Your task to perform on an android device: clear history in the chrome app Image 0: 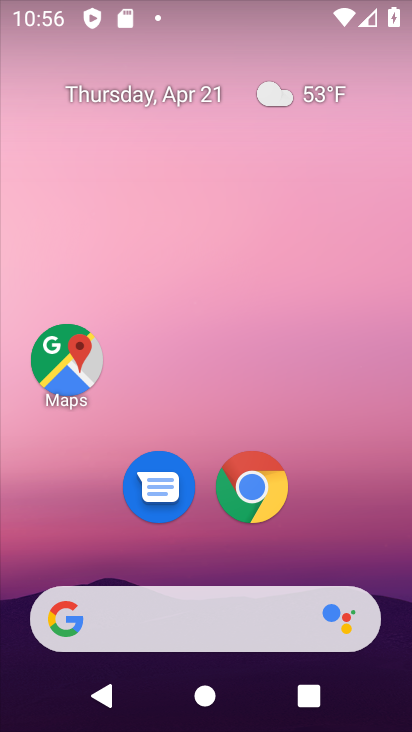
Step 0: click (344, 518)
Your task to perform on an android device: clear history in the chrome app Image 1: 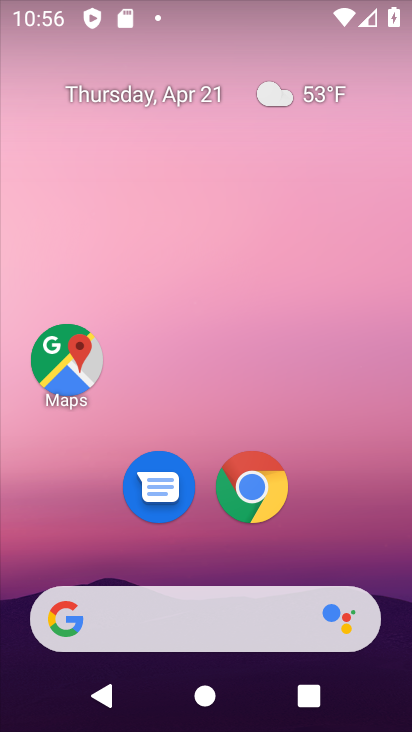
Step 1: drag from (324, 529) to (314, 128)
Your task to perform on an android device: clear history in the chrome app Image 2: 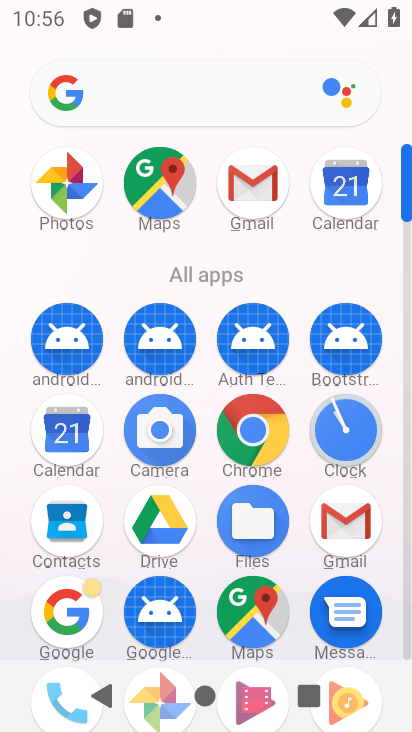
Step 2: click (244, 448)
Your task to perform on an android device: clear history in the chrome app Image 3: 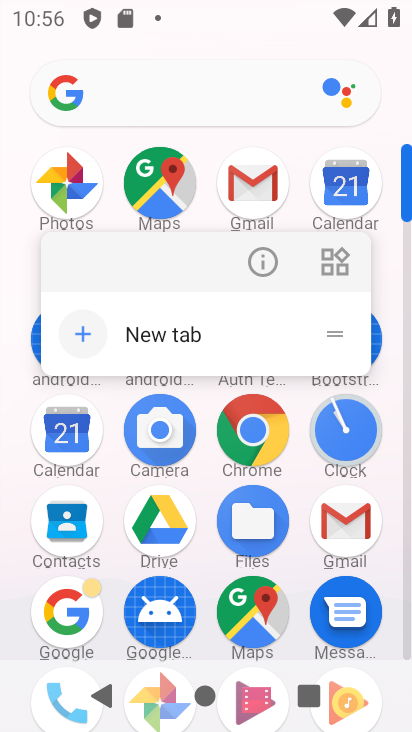
Step 3: click (258, 418)
Your task to perform on an android device: clear history in the chrome app Image 4: 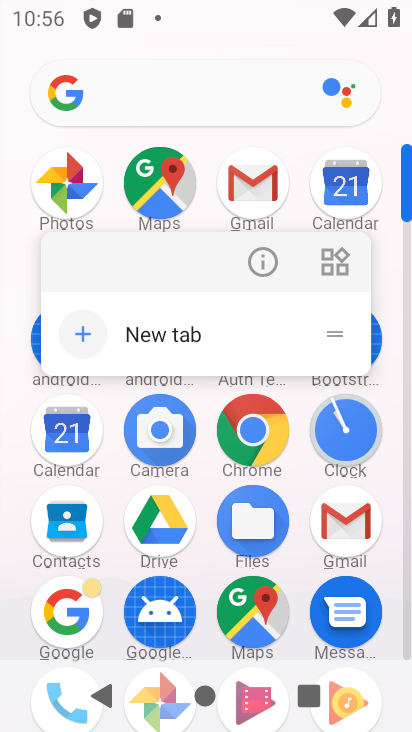
Step 4: click (258, 416)
Your task to perform on an android device: clear history in the chrome app Image 5: 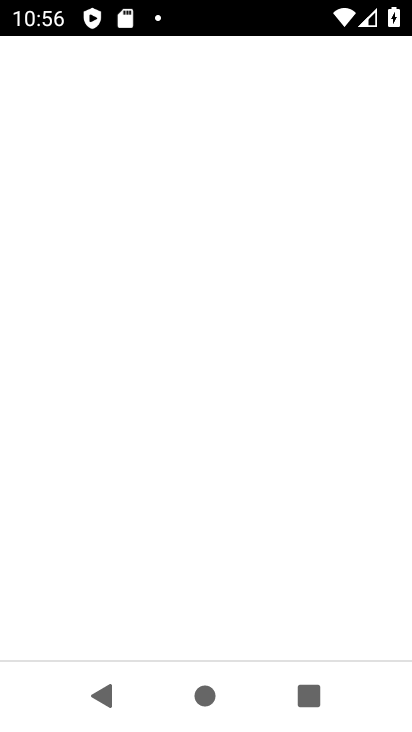
Step 5: click (258, 414)
Your task to perform on an android device: clear history in the chrome app Image 6: 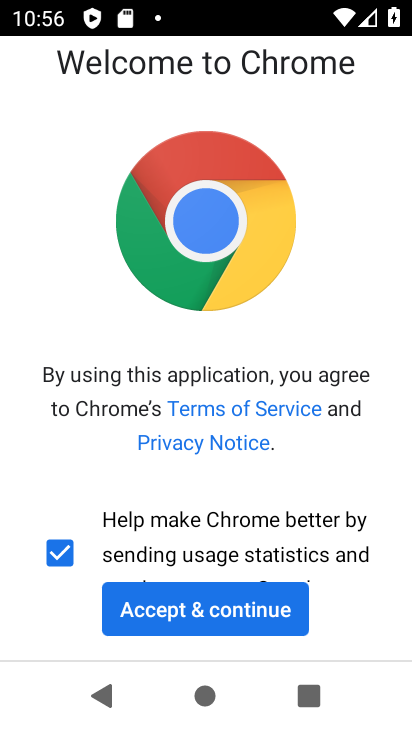
Step 6: click (247, 639)
Your task to perform on an android device: clear history in the chrome app Image 7: 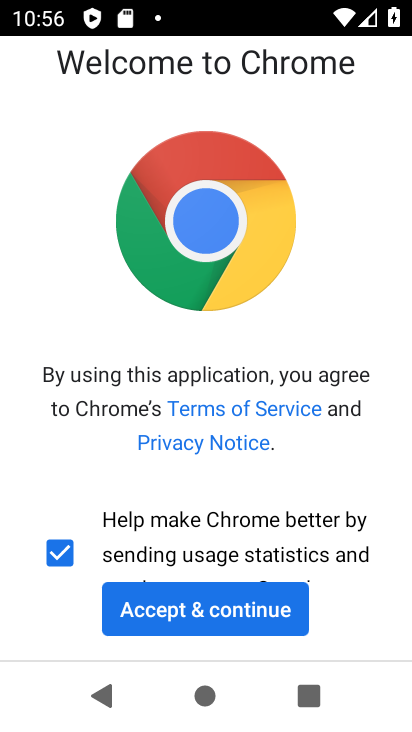
Step 7: click (229, 618)
Your task to perform on an android device: clear history in the chrome app Image 8: 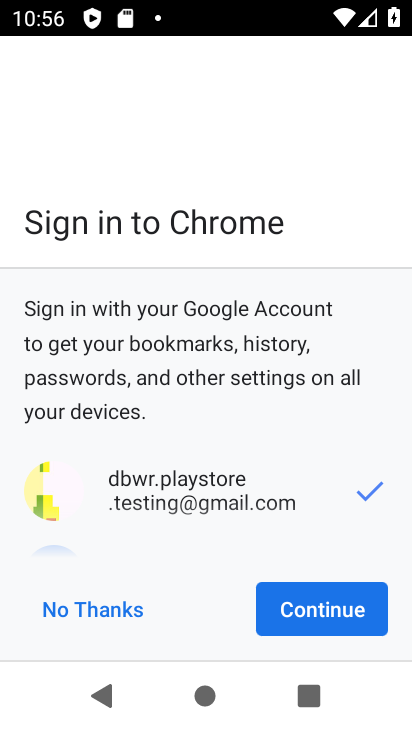
Step 8: click (99, 597)
Your task to perform on an android device: clear history in the chrome app Image 9: 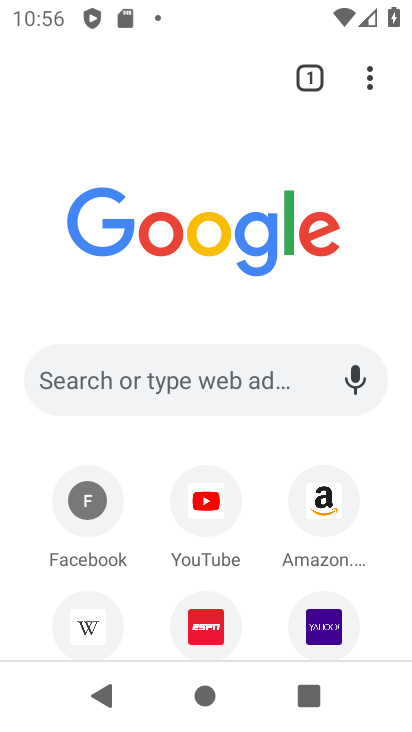
Step 9: task complete